Your task to perform on an android device: show emergency info Image 0: 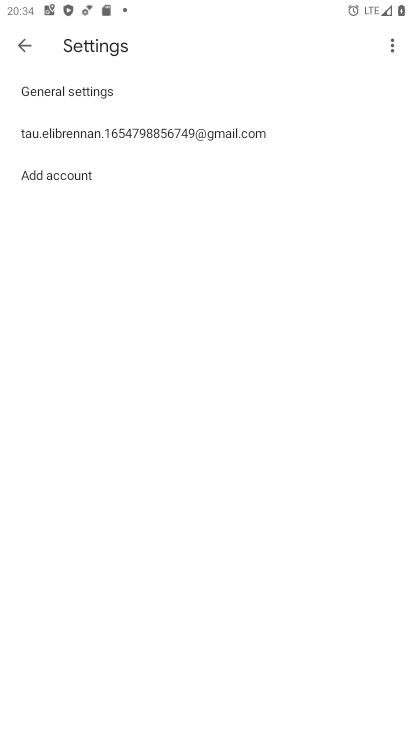
Step 0: press home button
Your task to perform on an android device: show emergency info Image 1: 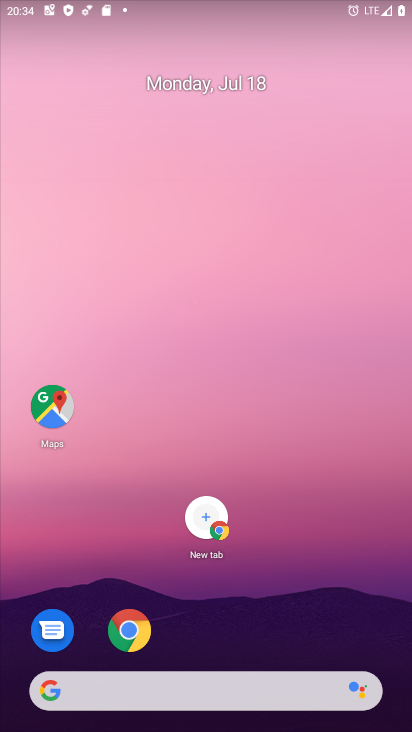
Step 1: drag from (215, 673) to (280, 250)
Your task to perform on an android device: show emergency info Image 2: 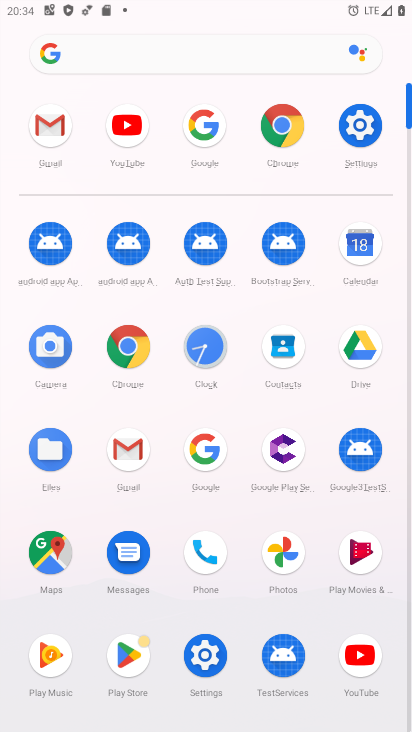
Step 2: click (363, 132)
Your task to perform on an android device: show emergency info Image 3: 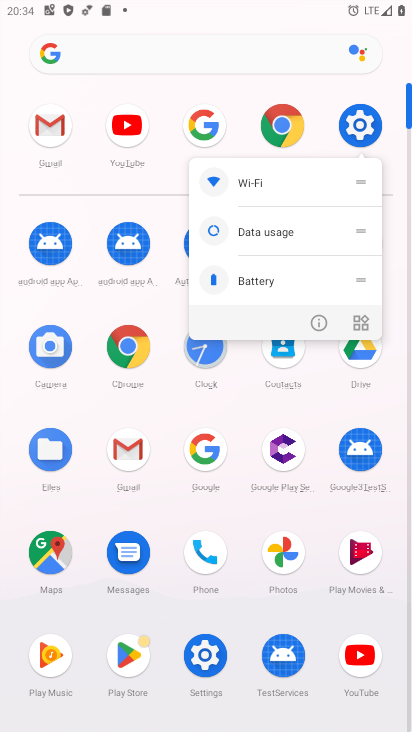
Step 3: click (356, 119)
Your task to perform on an android device: show emergency info Image 4: 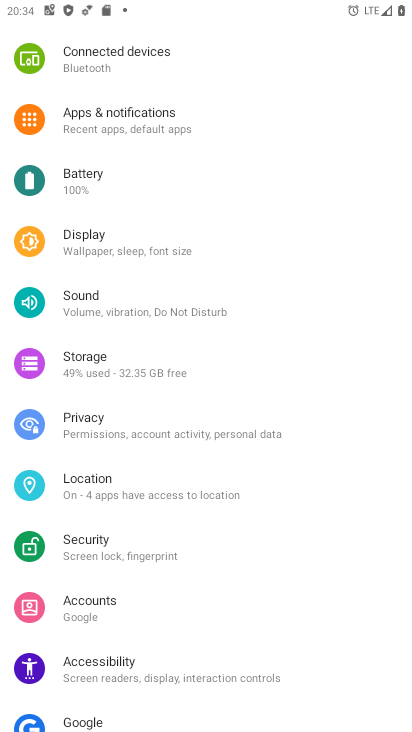
Step 4: drag from (156, 642) to (231, 246)
Your task to perform on an android device: show emergency info Image 5: 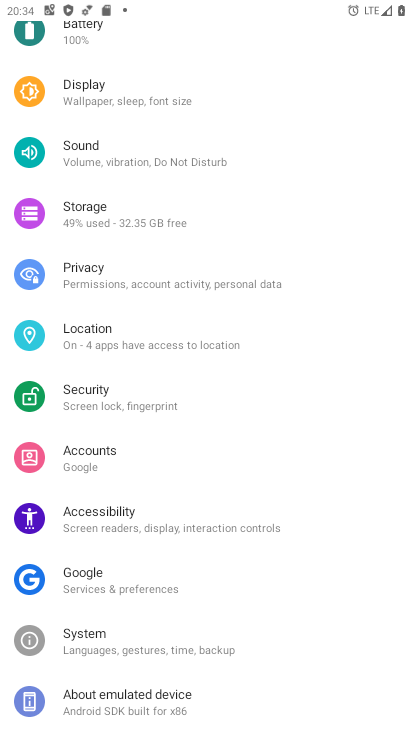
Step 5: click (106, 692)
Your task to perform on an android device: show emergency info Image 6: 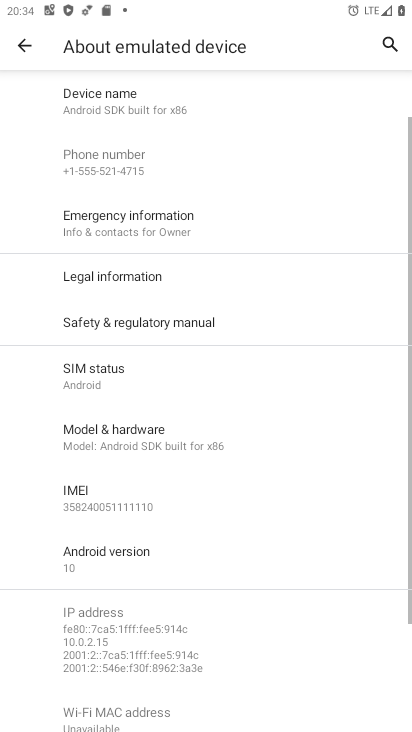
Step 6: click (138, 221)
Your task to perform on an android device: show emergency info Image 7: 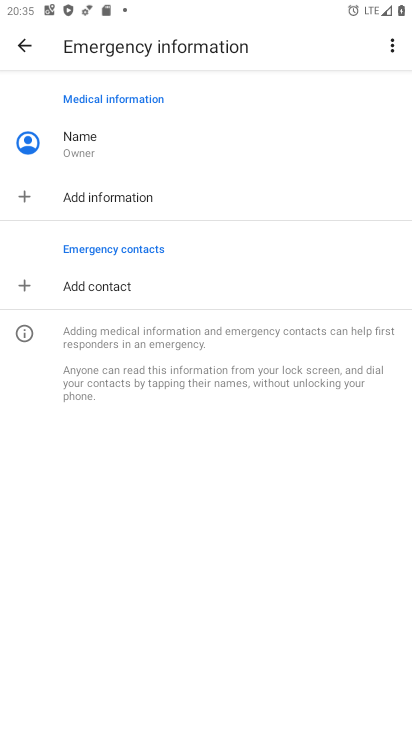
Step 7: task complete